Your task to perform on an android device: see tabs open on other devices in the chrome app Image 0: 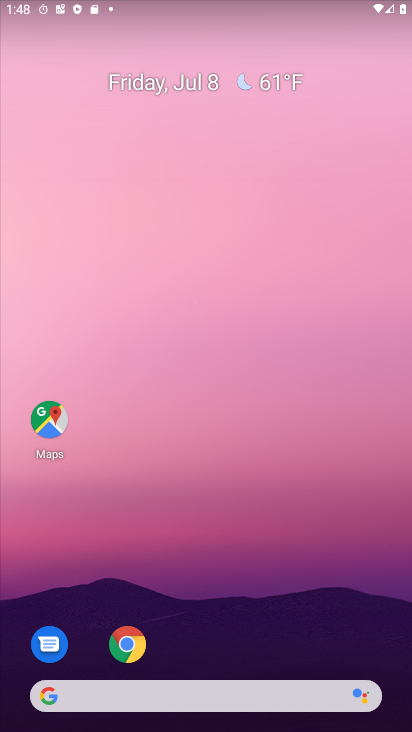
Step 0: press home button
Your task to perform on an android device: see tabs open on other devices in the chrome app Image 1: 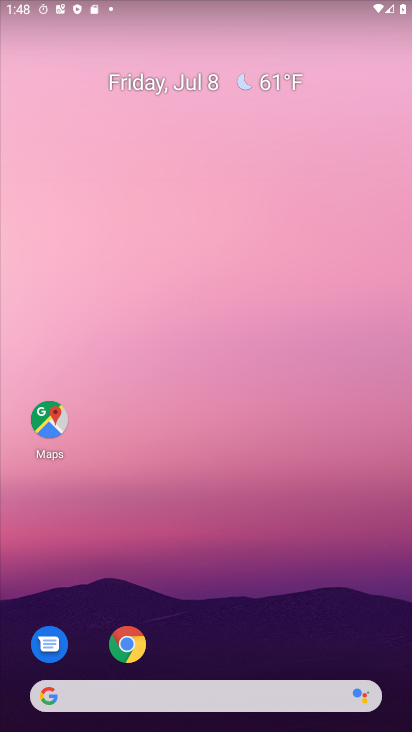
Step 1: drag from (228, 529) to (258, 104)
Your task to perform on an android device: see tabs open on other devices in the chrome app Image 2: 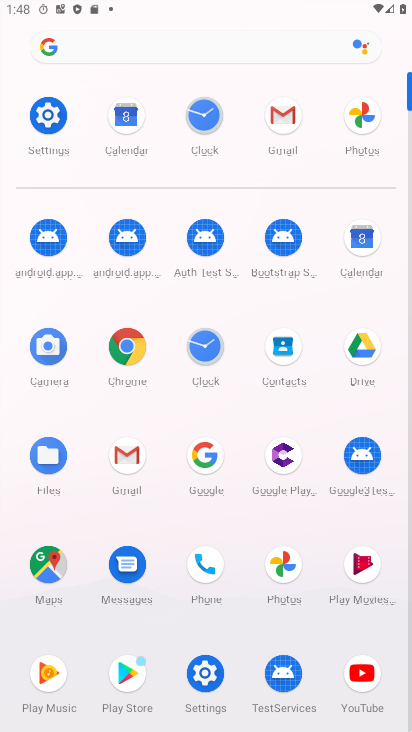
Step 2: click (41, 119)
Your task to perform on an android device: see tabs open on other devices in the chrome app Image 3: 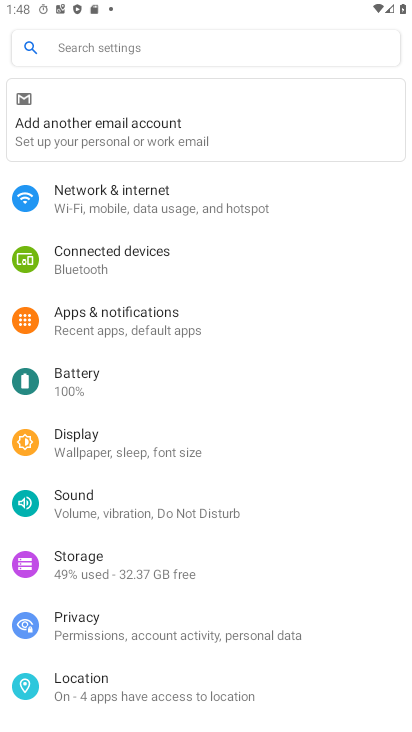
Step 3: press back button
Your task to perform on an android device: see tabs open on other devices in the chrome app Image 4: 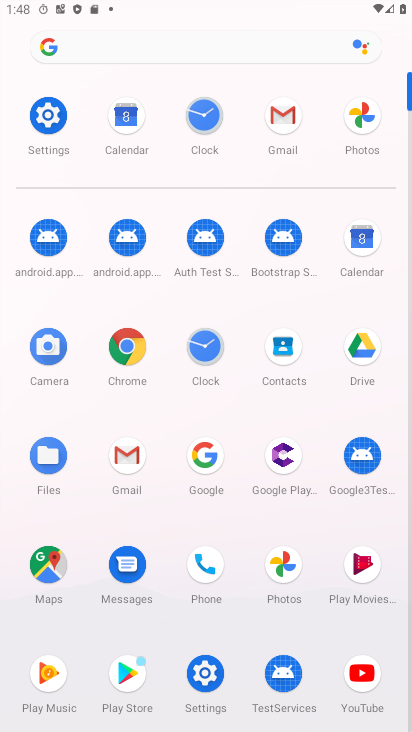
Step 4: click (131, 335)
Your task to perform on an android device: see tabs open on other devices in the chrome app Image 5: 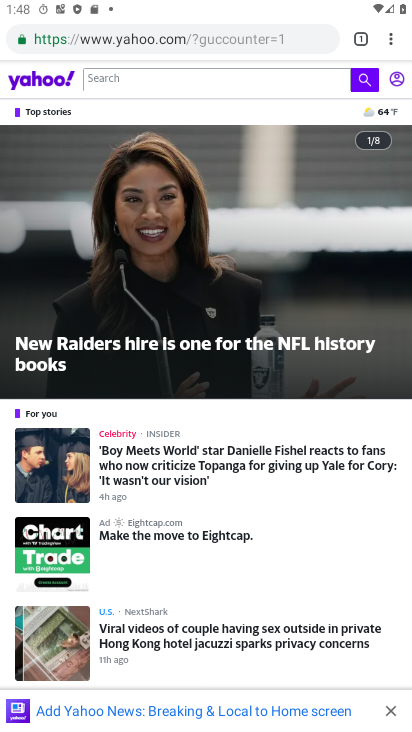
Step 5: click (131, 335)
Your task to perform on an android device: see tabs open on other devices in the chrome app Image 6: 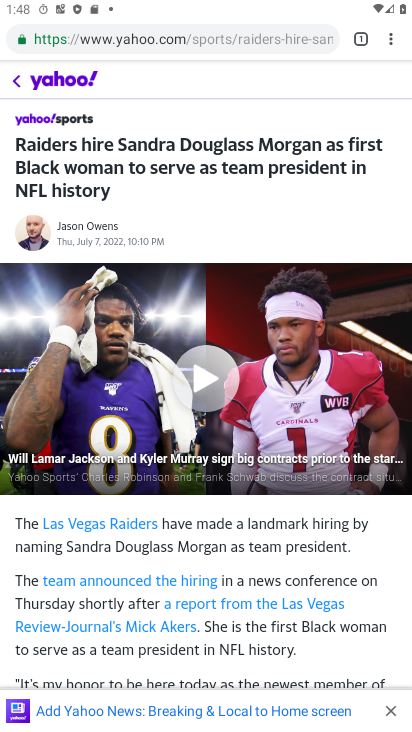
Step 6: click (392, 41)
Your task to perform on an android device: see tabs open on other devices in the chrome app Image 7: 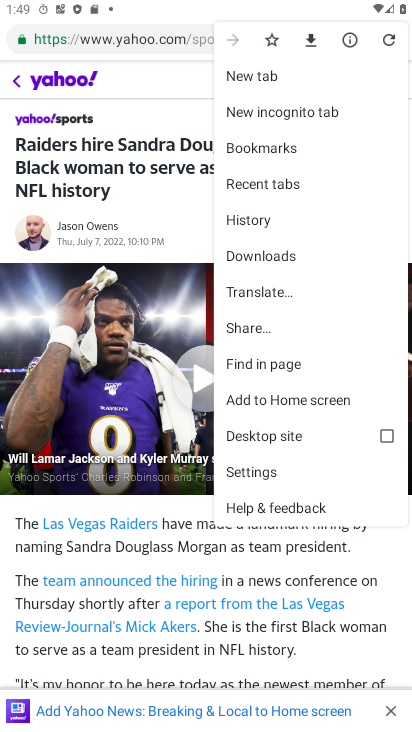
Step 7: click (267, 189)
Your task to perform on an android device: see tabs open on other devices in the chrome app Image 8: 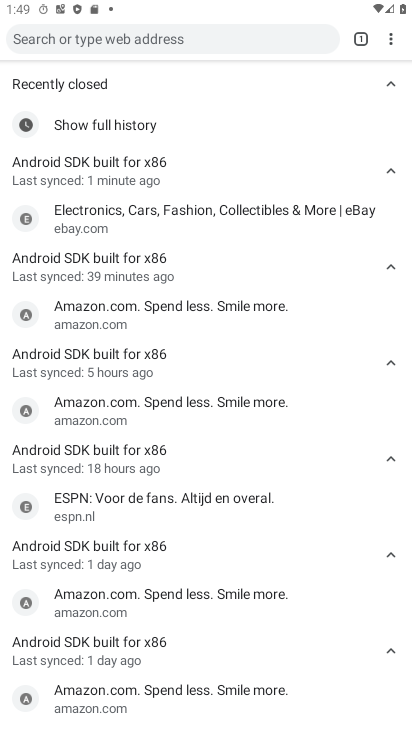
Step 8: task complete